Your task to perform on an android device: allow notifications from all sites in the chrome app Image 0: 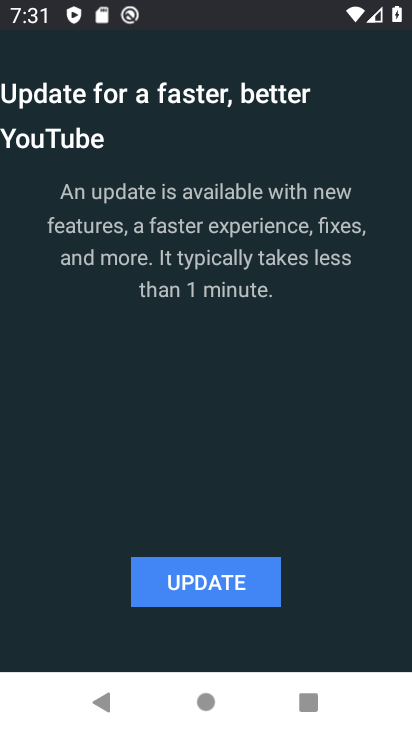
Step 0: press back button
Your task to perform on an android device: allow notifications from all sites in the chrome app Image 1: 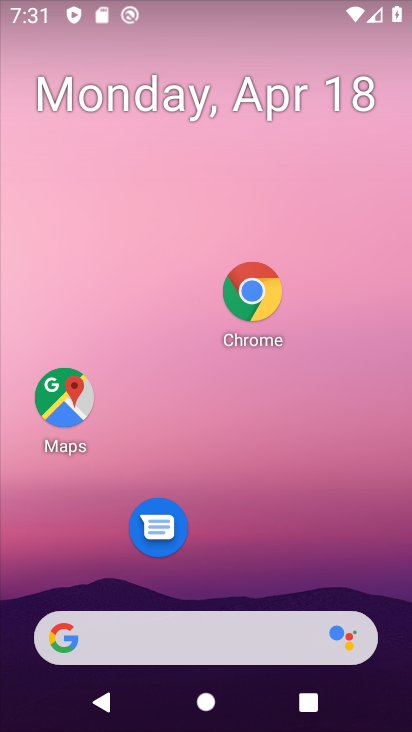
Step 1: click (385, 242)
Your task to perform on an android device: allow notifications from all sites in the chrome app Image 2: 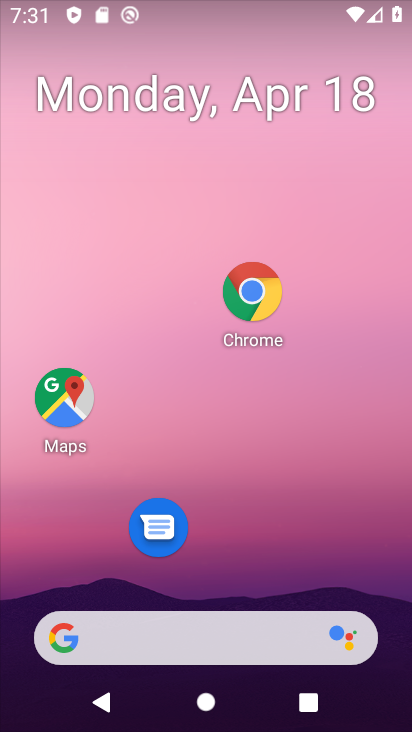
Step 2: drag from (299, 295) to (300, 239)
Your task to perform on an android device: allow notifications from all sites in the chrome app Image 3: 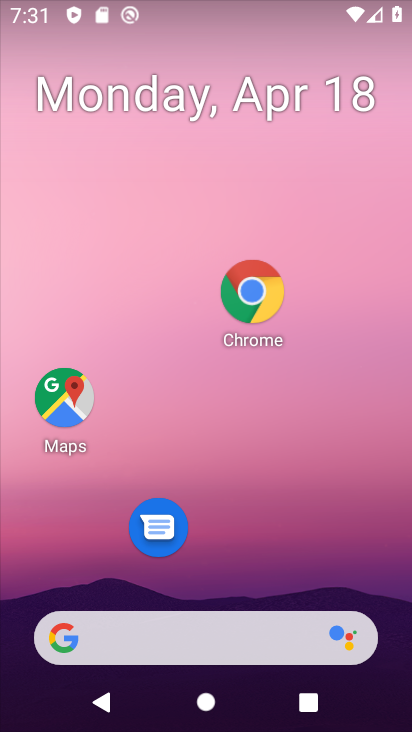
Step 3: click (311, 270)
Your task to perform on an android device: allow notifications from all sites in the chrome app Image 4: 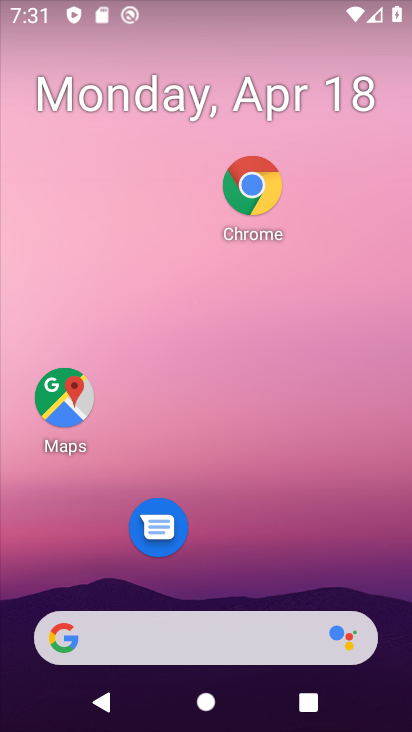
Step 4: drag from (191, 449) to (214, 235)
Your task to perform on an android device: allow notifications from all sites in the chrome app Image 5: 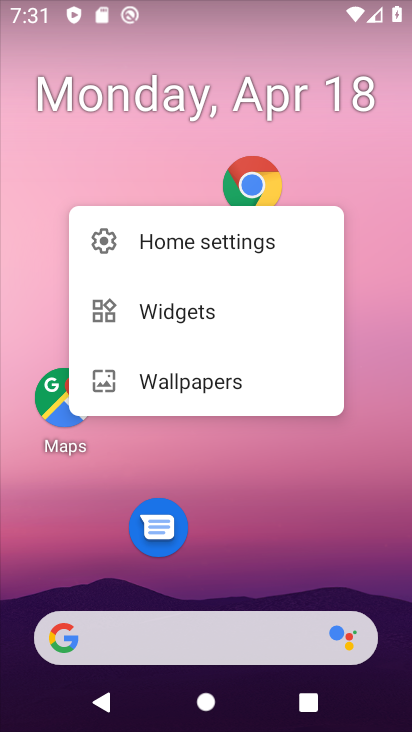
Step 5: drag from (295, 437) to (311, 227)
Your task to perform on an android device: allow notifications from all sites in the chrome app Image 6: 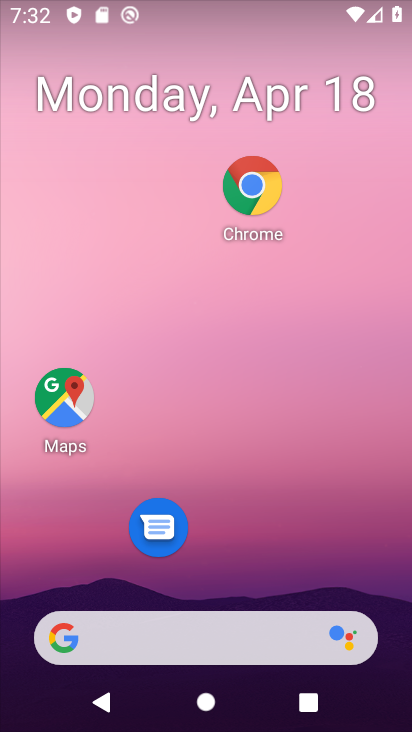
Step 6: drag from (254, 493) to (276, 200)
Your task to perform on an android device: allow notifications from all sites in the chrome app Image 7: 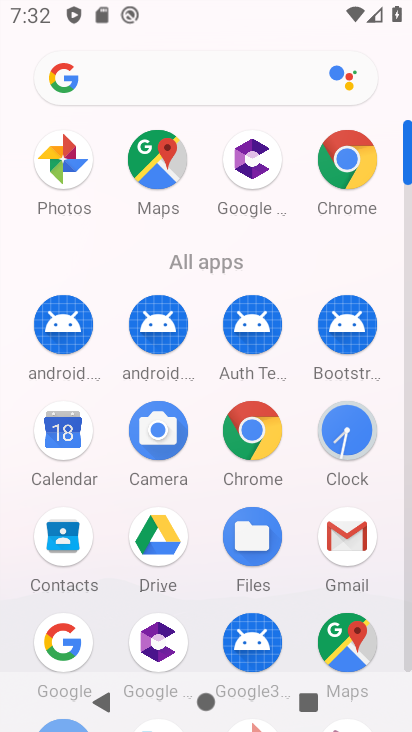
Step 7: click (340, 150)
Your task to perform on an android device: allow notifications from all sites in the chrome app Image 8: 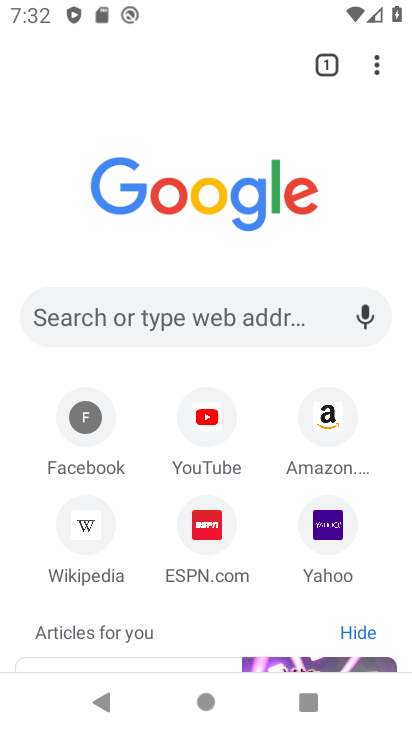
Step 8: click (381, 70)
Your task to perform on an android device: allow notifications from all sites in the chrome app Image 9: 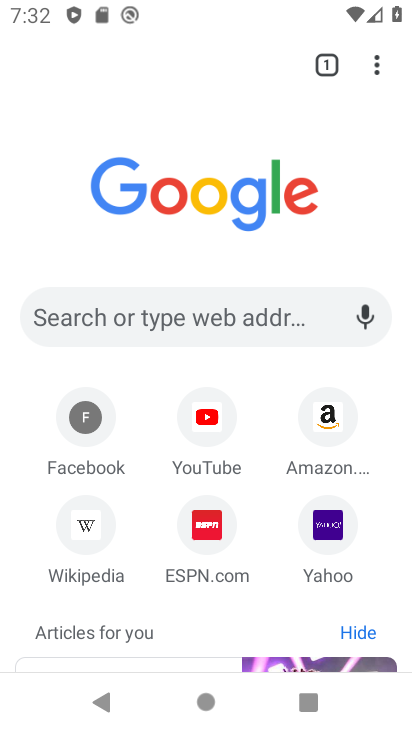
Step 9: click (381, 70)
Your task to perform on an android device: allow notifications from all sites in the chrome app Image 10: 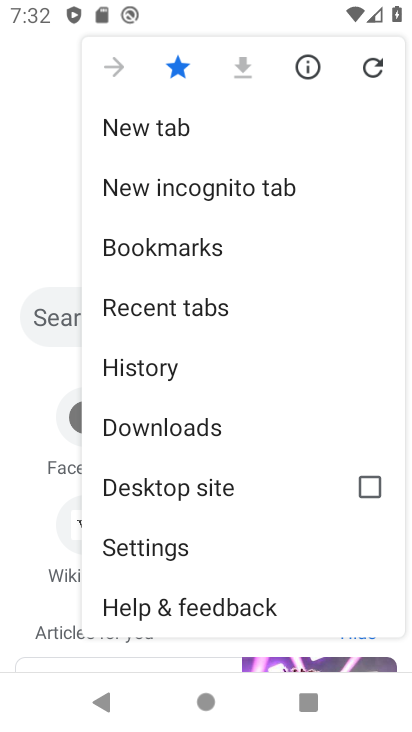
Step 10: click (188, 542)
Your task to perform on an android device: allow notifications from all sites in the chrome app Image 11: 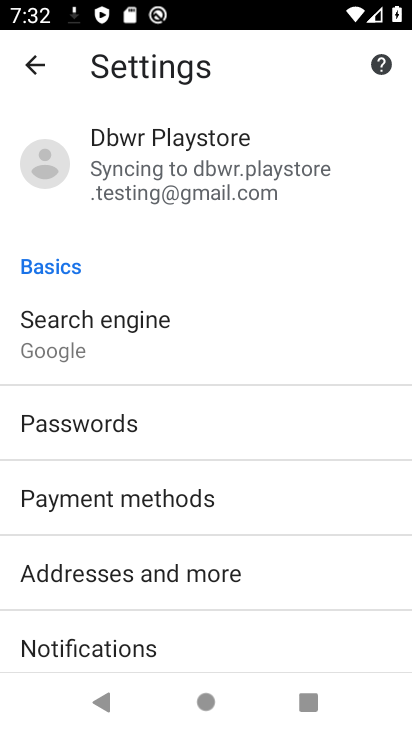
Step 11: drag from (230, 558) to (242, 165)
Your task to perform on an android device: allow notifications from all sites in the chrome app Image 12: 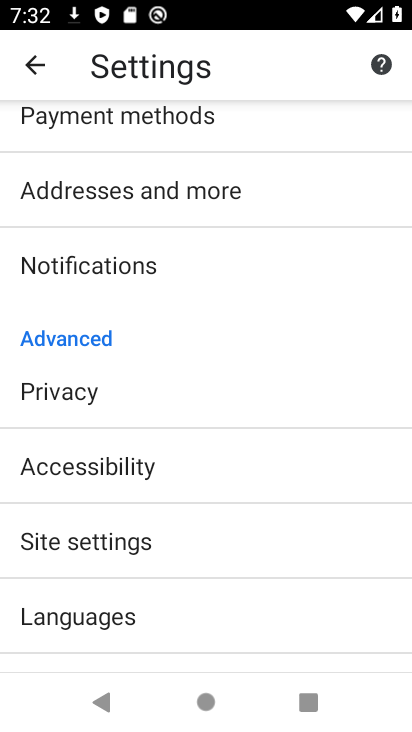
Step 12: click (83, 540)
Your task to perform on an android device: allow notifications from all sites in the chrome app Image 13: 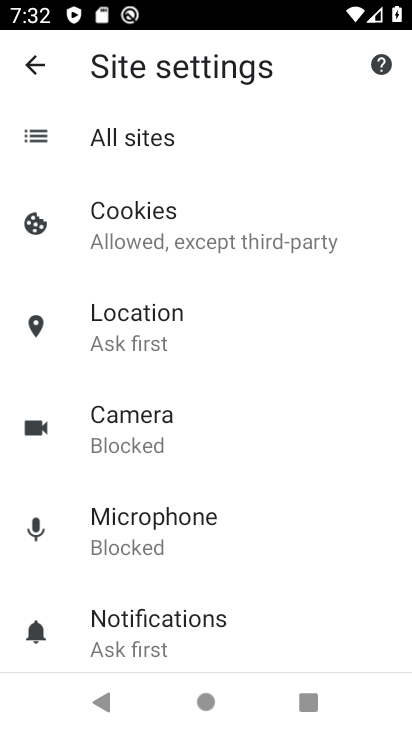
Step 13: drag from (202, 597) to (273, 190)
Your task to perform on an android device: allow notifications from all sites in the chrome app Image 14: 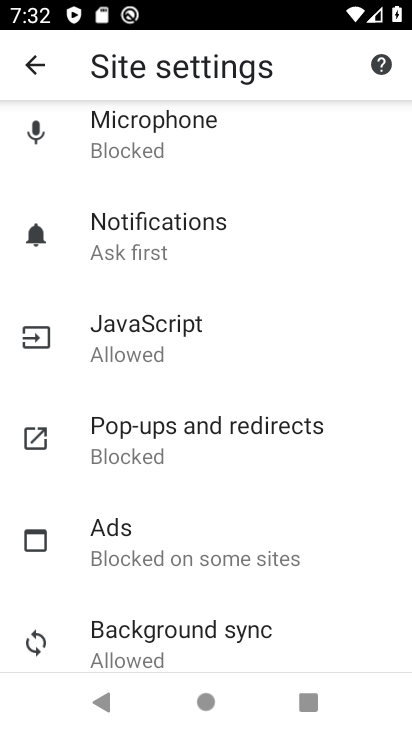
Step 14: drag from (245, 236) to (254, 721)
Your task to perform on an android device: allow notifications from all sites in the chrome app Image 15: 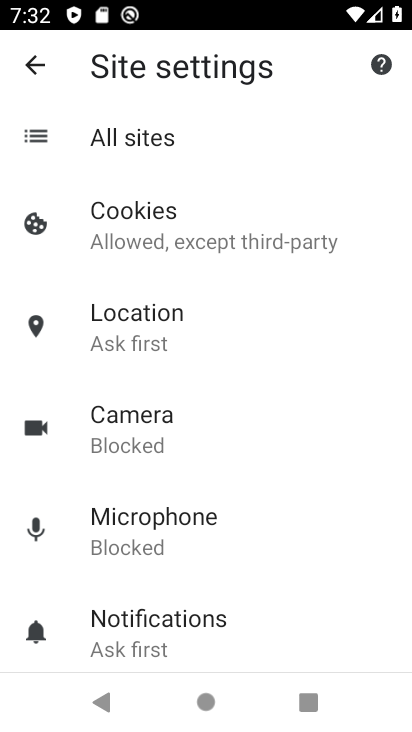
Step 15: click (180, 229)
Your task to perform on an android device: allow notifications from all sites in the chrome app Image 16: 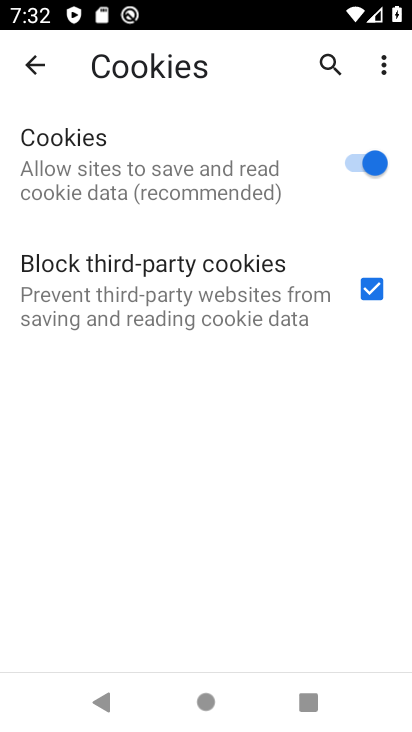
Step 16: press back button
Your task to perform on an android device: allow notifications from all sites in the chrome app Image 17: 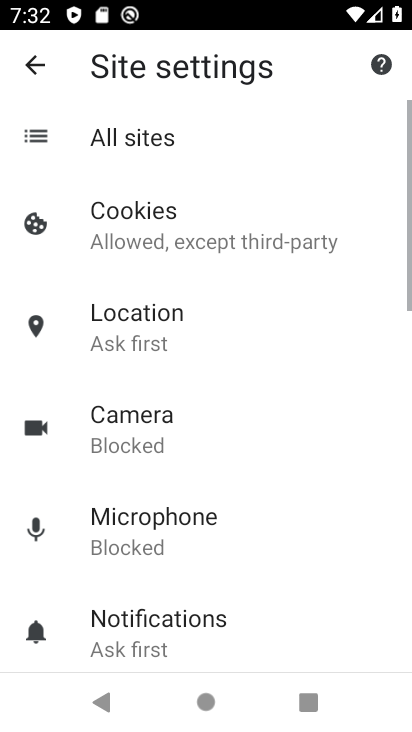
Step 17: click (144, 314)
Your task to perform on an android device: allow notifications from all sites in the chrome app Image 18: 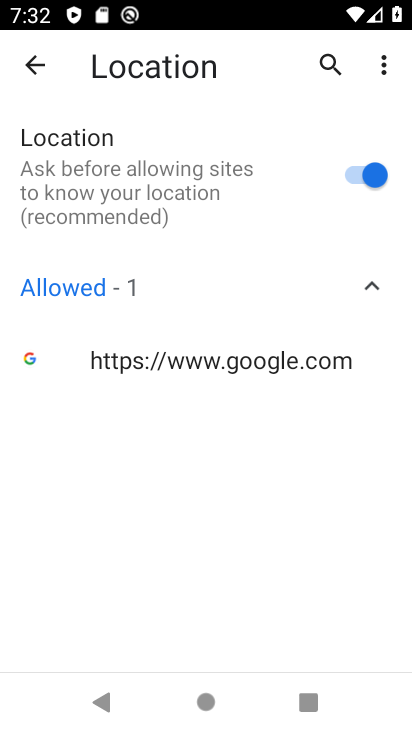
Step 18: press back button
Your task to perform on an android device: allow notifications from all sites in the chrome app Image 19: 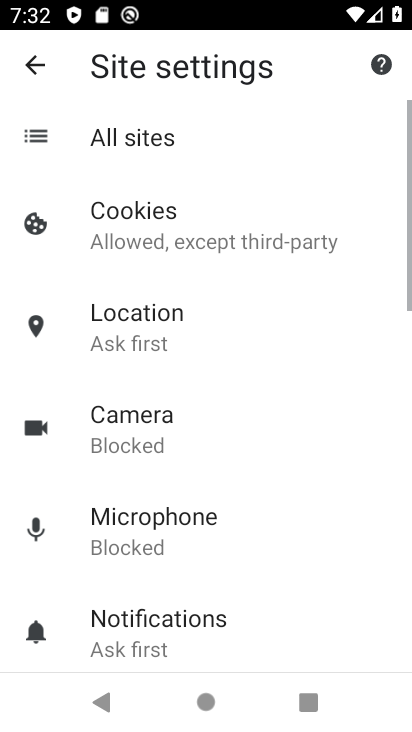
Step 19: click (151, 439)
Your task to perform on an android device: allow notifications from all sites in the chrome app Image 20: 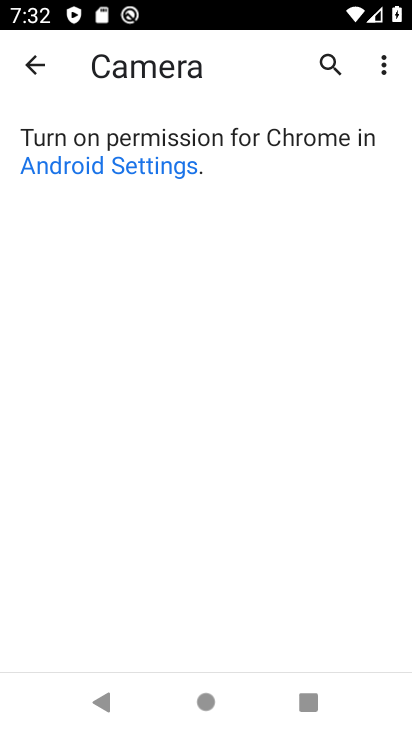
Step 20: press back button
Your task to perform on an android device: allow notifications from all sites in the chrome app Image 21: 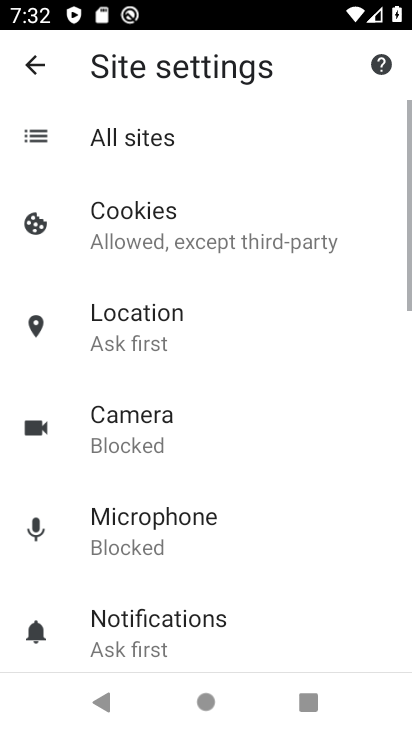
Step 21: click (157, 543)
Your task to perform on an android device: allow notifications from all sites in the chrome app Image 22: 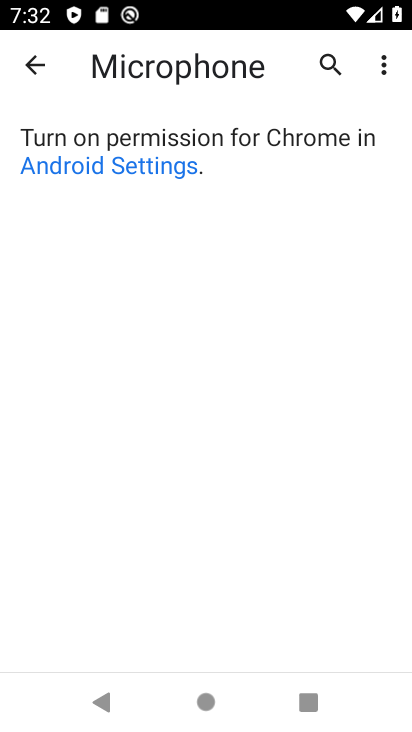
Step 22: press back button
Your task to perform on an android device: allow notifications from all sites in the chrome app Image 23: 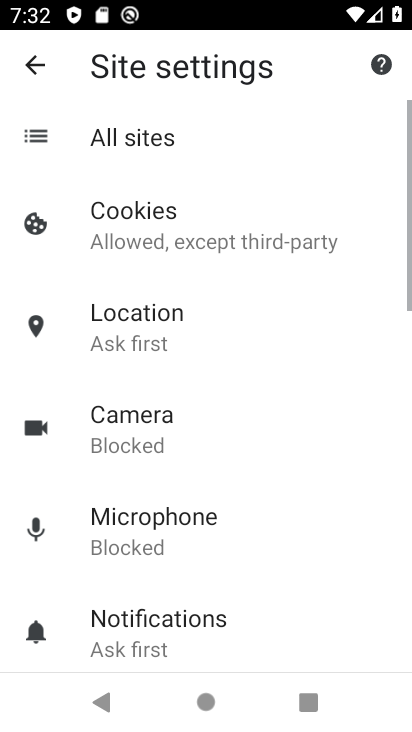
Step 23: drag from (174, 577) to (290, 169)
Your task to perform on an android device: allow notifications from all sites in the chrome app Image 24: 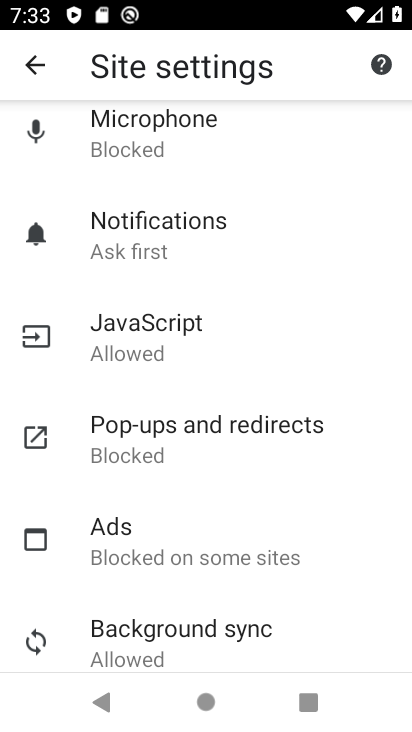
Step 24: click (216, 231)
Your task to perform on an android device: allow notifications from all sites in the chrome app Image 25: 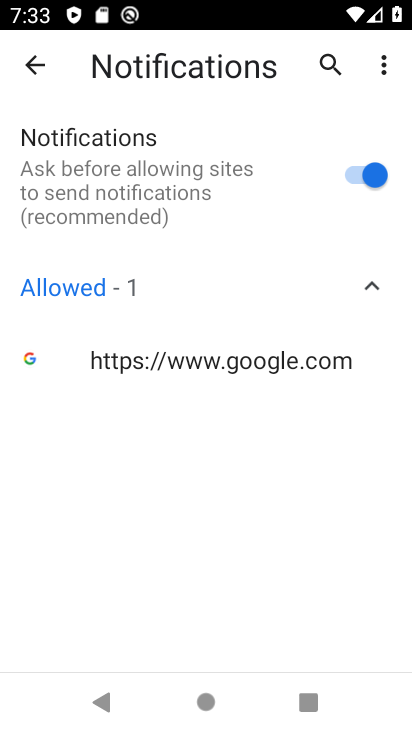
Step 25: press back button
Your task to perform on an android device: allow notifications from all sites in the chrome app Image 26: 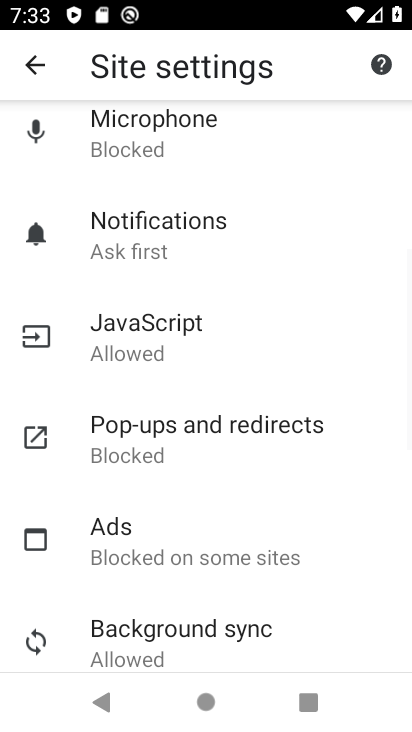
Step 26: click (197, 327)
Your task to perform on an android device: allow notifications from all sites in the chrome app Image 27: 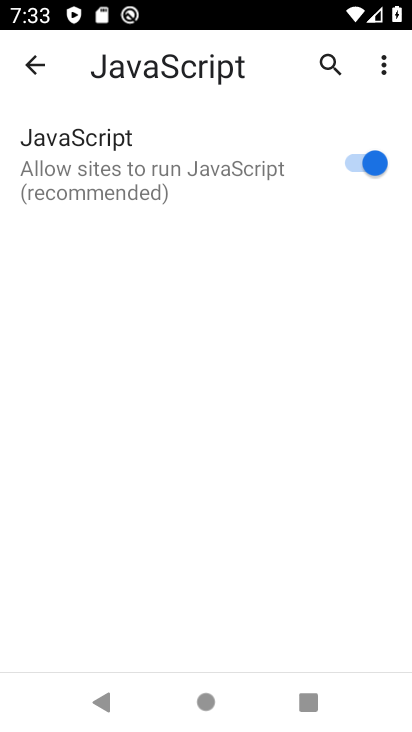
Step 27: press back button
Your task to perform on an android device: allow notifications from all sites in the chrome app Image 28: 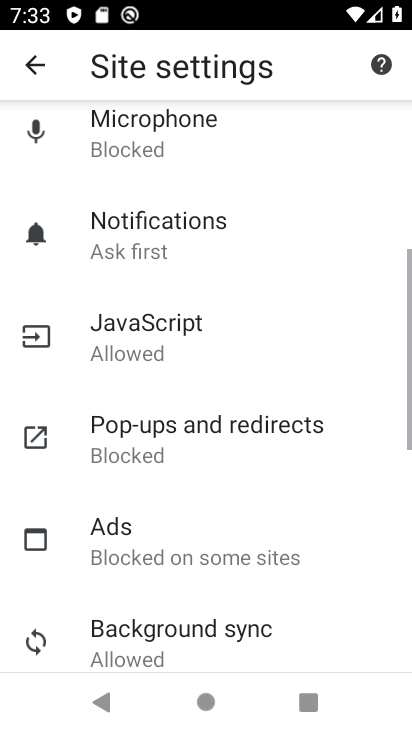
Step 28: click (187, 473)
Your task to perform on an android device: allow notifications from all sites in the chrome app Image 29: 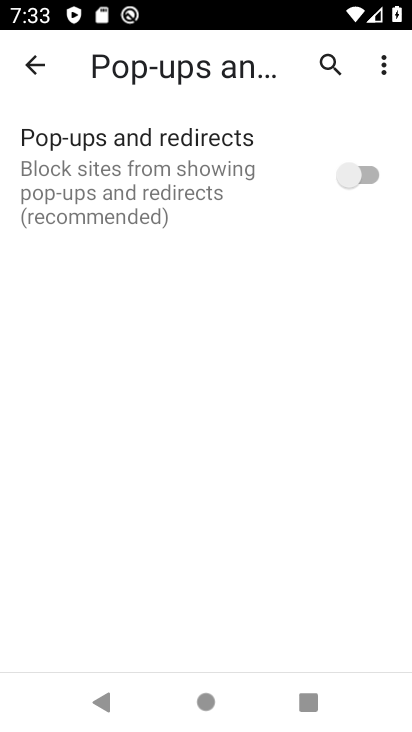
Step 29: click (370, 178)
Your task to perform on an android device: allow notifications from all sites in the chrome app Image 30: 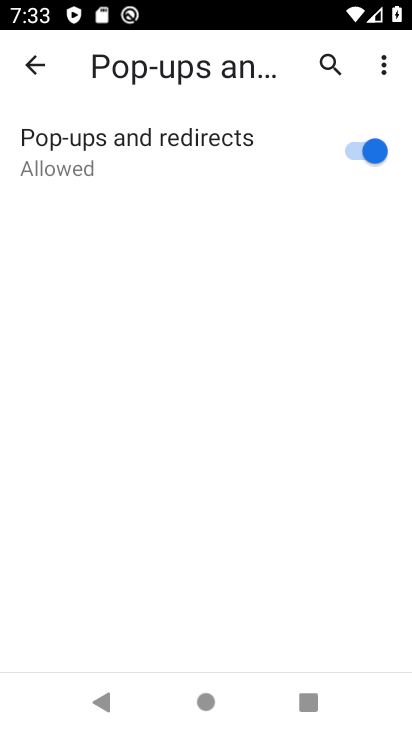
Step 30: press back button
Your task to perform on an android device: allow notifications from all sites in the chrome app Image 31: 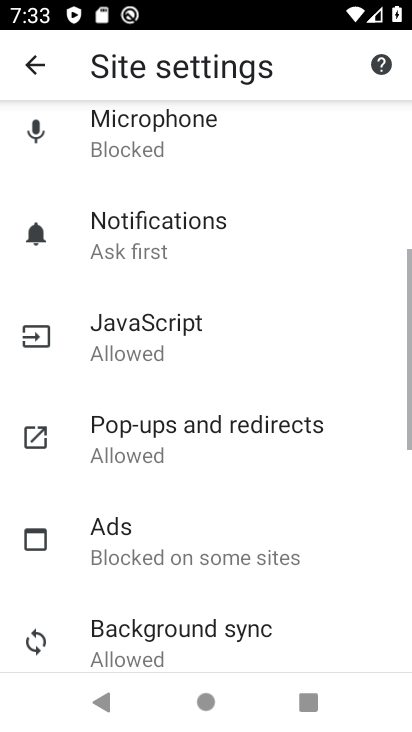
Step 31: drag from (179, 584) to (250, 273)
Your task to perform on an android device: allow notifications from all sites in the chrome app Image 32: 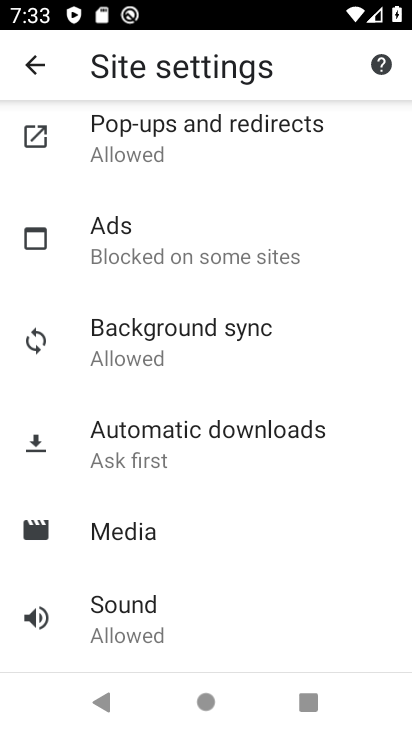
Step 32: click (181, 218)
Your task to perform on an android device: allow notifications from all sites in the chrome app Image 33: 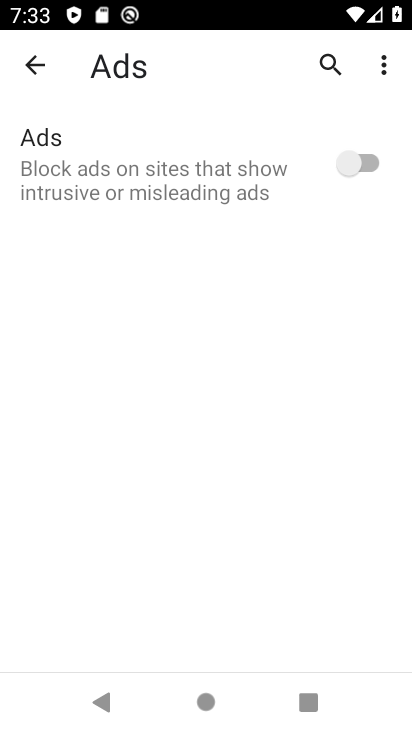
Step 33: click (347, 160)
Your task to perform on an android device: allow notifications from all sites in the chrome app Image 34: 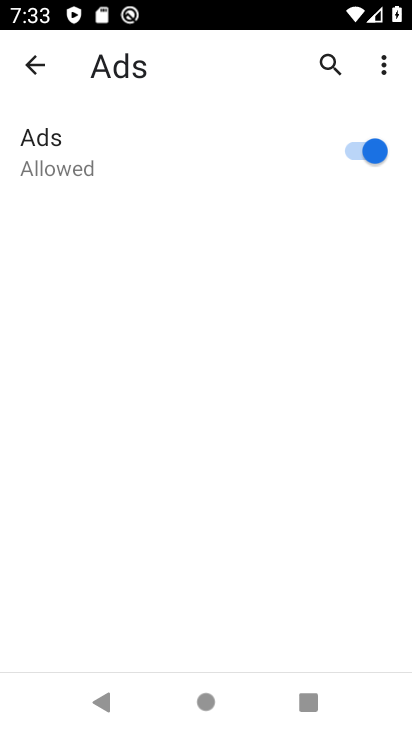
Step 34: press back button
Your task to perform on an android device: allow notifications from all sites in the chrome app Image 35: 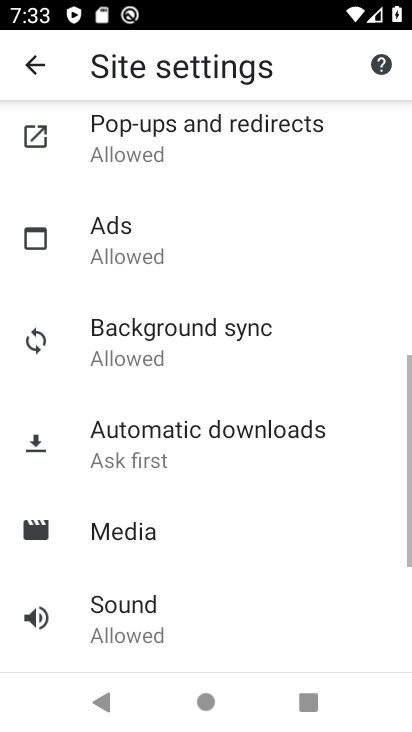
Step 35: click (177, 353)
Your task to perform on an android device: allow notifications from all sites in the chrome app Image 36: 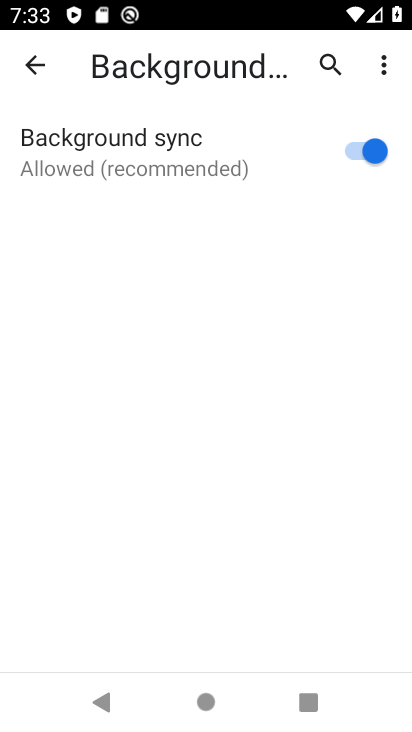
Step 36: press back button
Your task to perform on an android device: allow notifications from all sites in the chrome app Image 37: 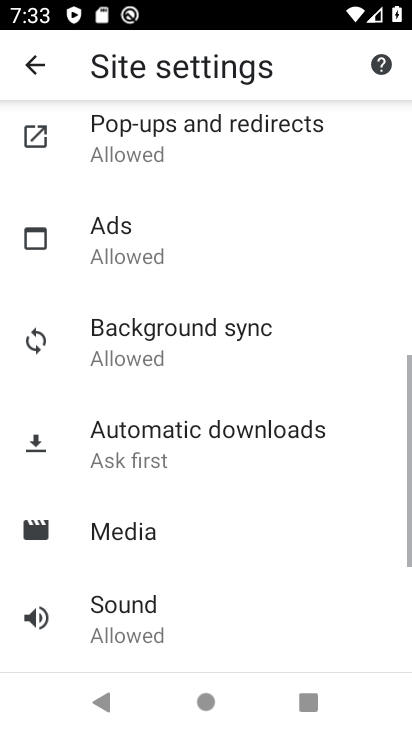
Step 37: click (195, 430)
Your task to perform on an android device: allow notifications from all sites in the chrome app Image 38: 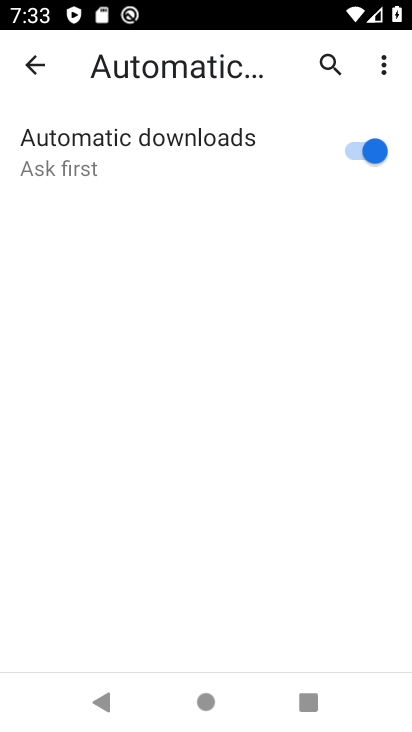
Step 38: press back button
Your task to perform on an android device: allow notifications from all sites in the chrome app Image 39: 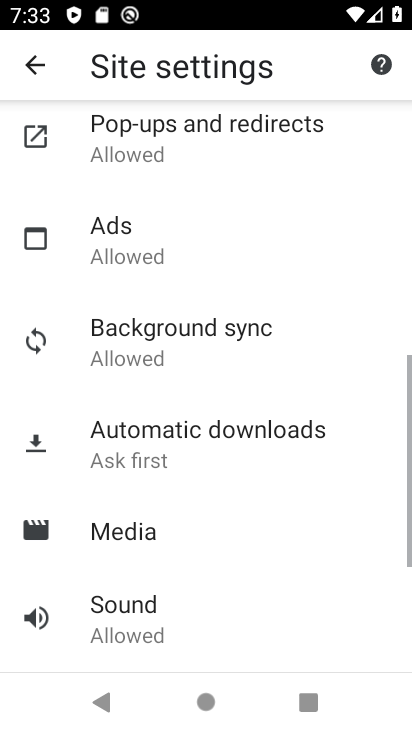
Step 39: click (217, 520)
Your task to perform on an android device: allow notifications from all sites in the chrome app Image 40: 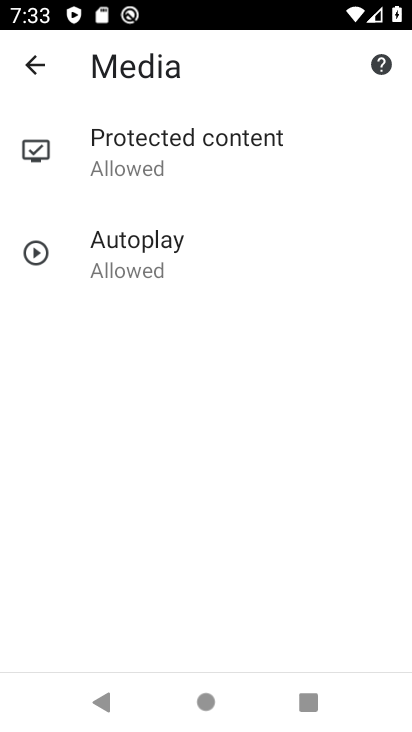
Step 40: press back button
Your task to perform on an android device: allow notifications from all sites in the chrome app Image 41: 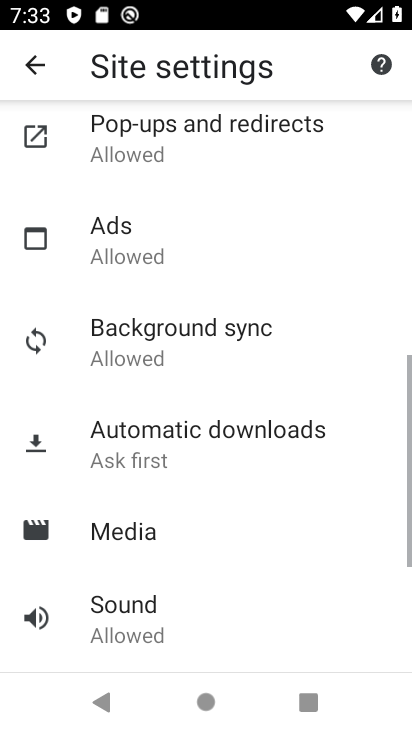
Step 41: drag from (238, 511) to (319, 213)
Your task to perform on an android device: allow notifications from all sites in the chrome app Image 42: 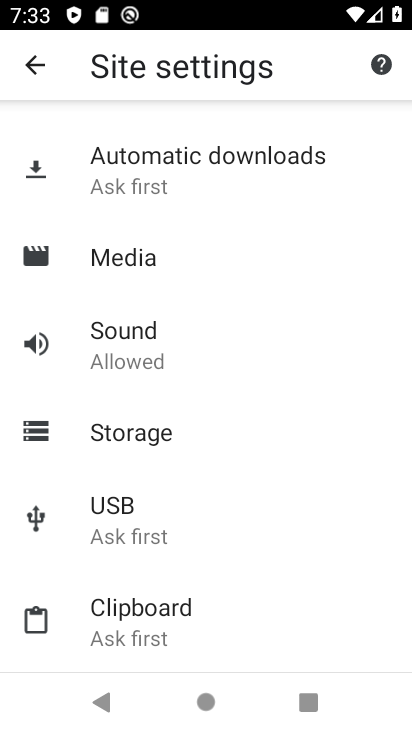
Step 42: click (125, 317)
Your task to perform on an android device: allow notifications from all sites in the chrome app Image 43: 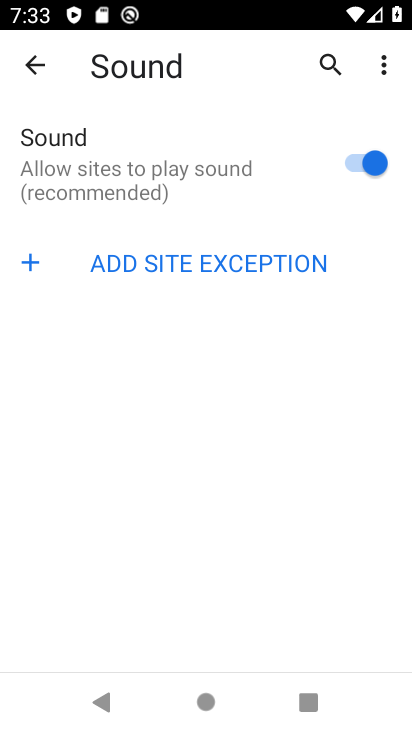
Step 43: press back button
Your task to perform on an android device: allow notifications from all sites in the chrome app Image 44: 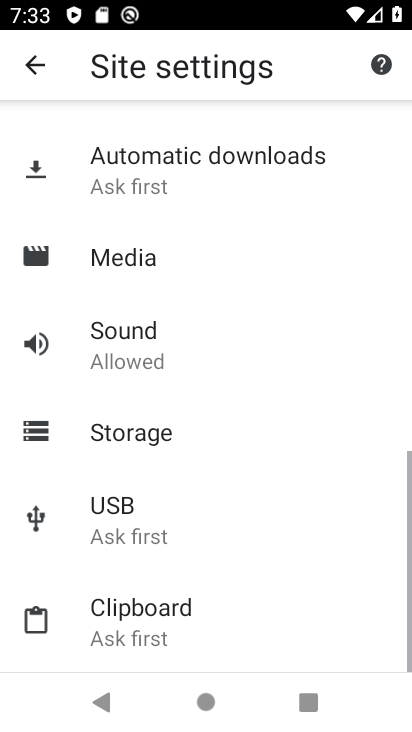
Step 44: click (137, 533)
Your task to perform on an android device: allow notifications from all sites in the chrome app Image 45: 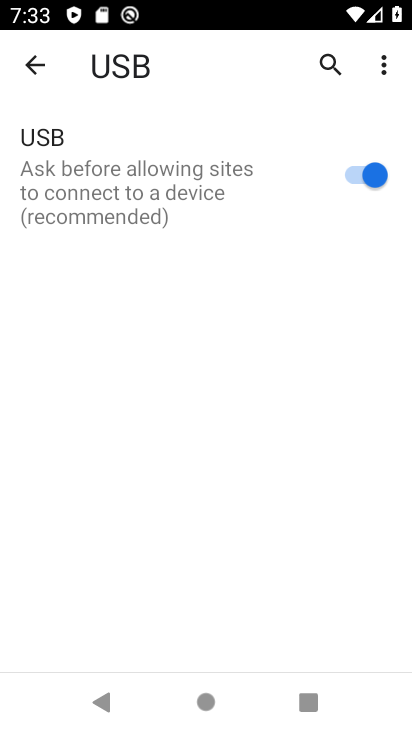
Step 45: press back button
Your task to perform on an android device: allow notifications from all sites in the chrome app Image 46: 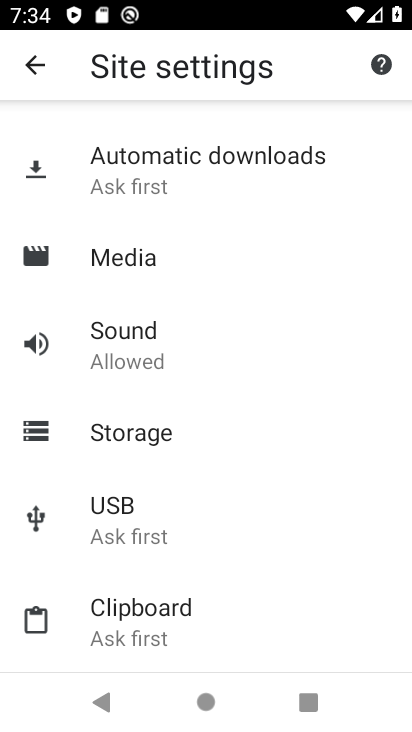
Step 46: click (165, 616)
Your task to perform on an android device: allow notifications from all sites in the chrome app Image 47: 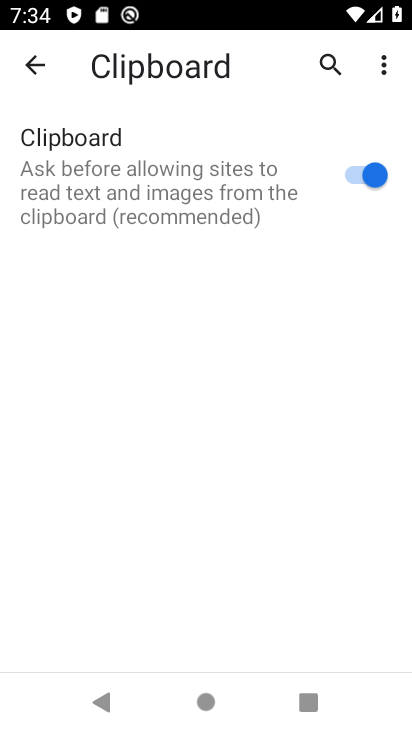
Step 47: click (53, 52)
Your task to perform on an android device: allow notifications from all sites in the chrome app Image 48: 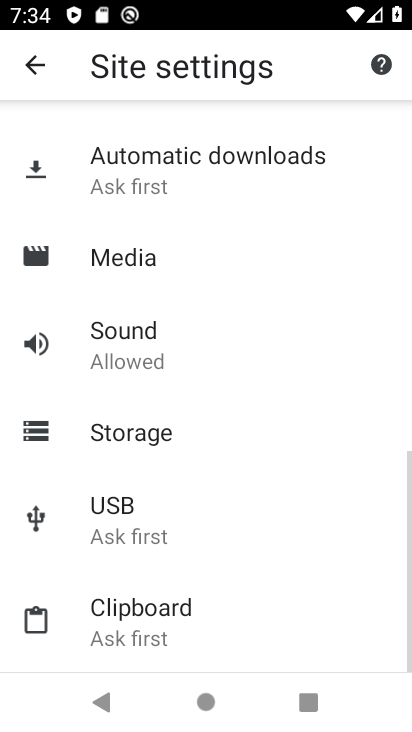
Step 48: task complete